Your task to perform on an android device: Open Android settings Image 0: 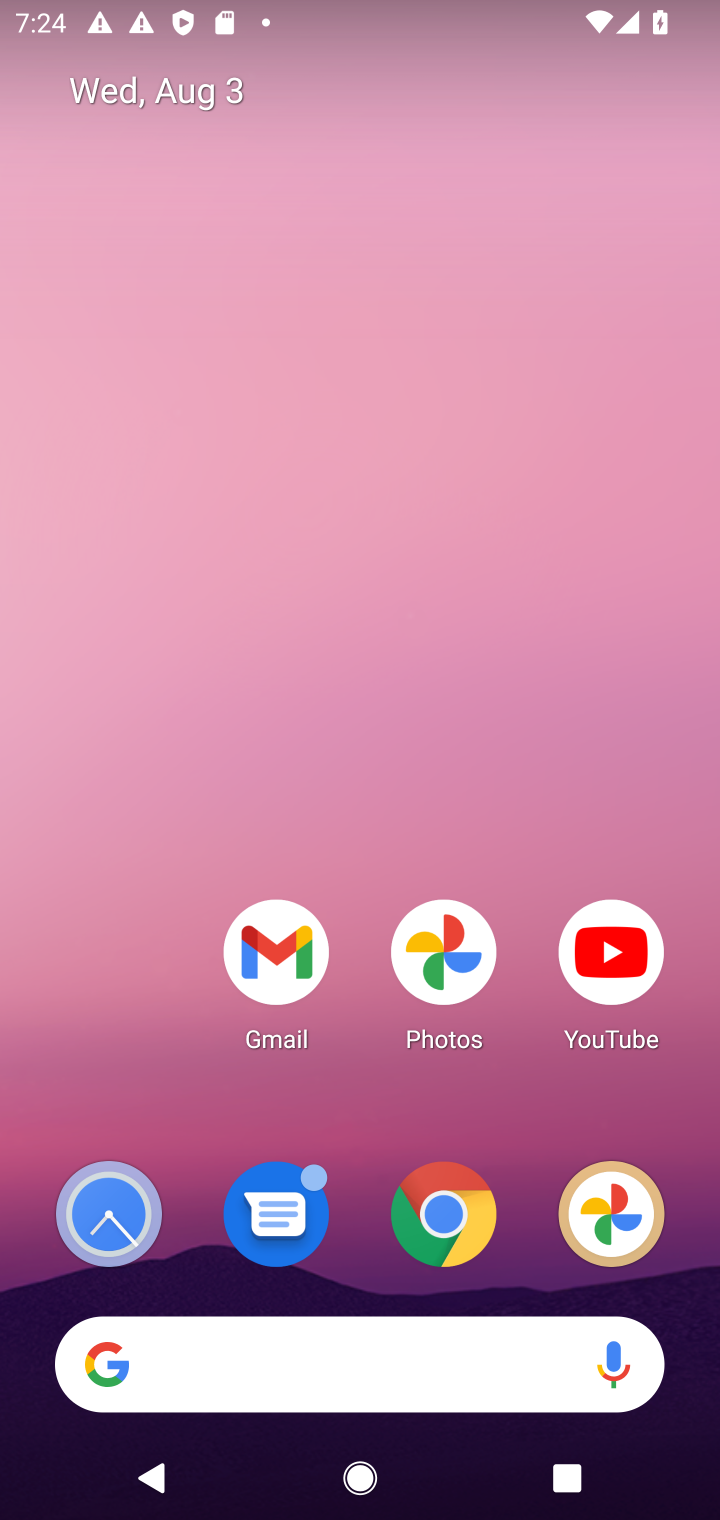
Step 0: drag from (301, 712) to (316, 452)
Your task to perform on an android device: Open Android settings Image 1: 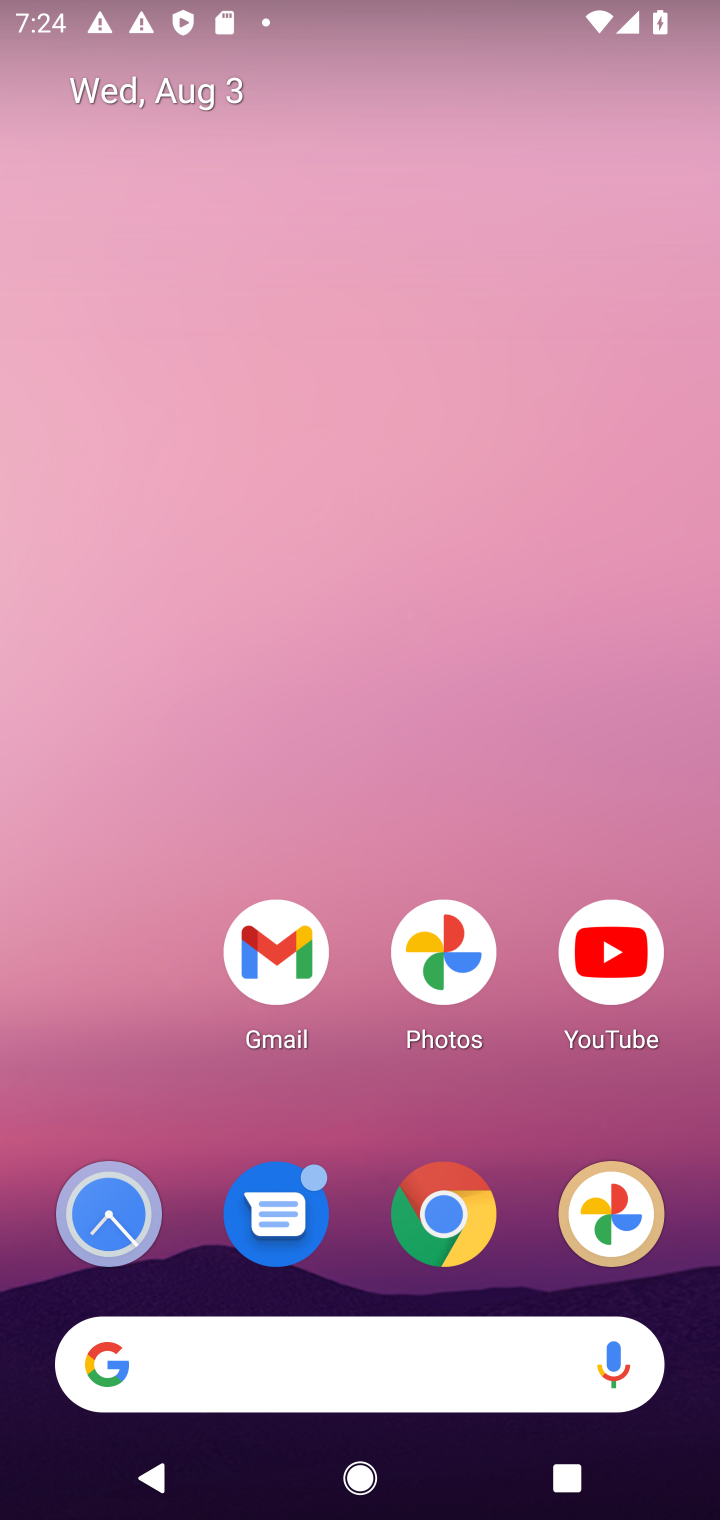
Step 1: drag from (300, 651) to (300, 434)
Your task to perform on an android device: Open Android settings Image 2: 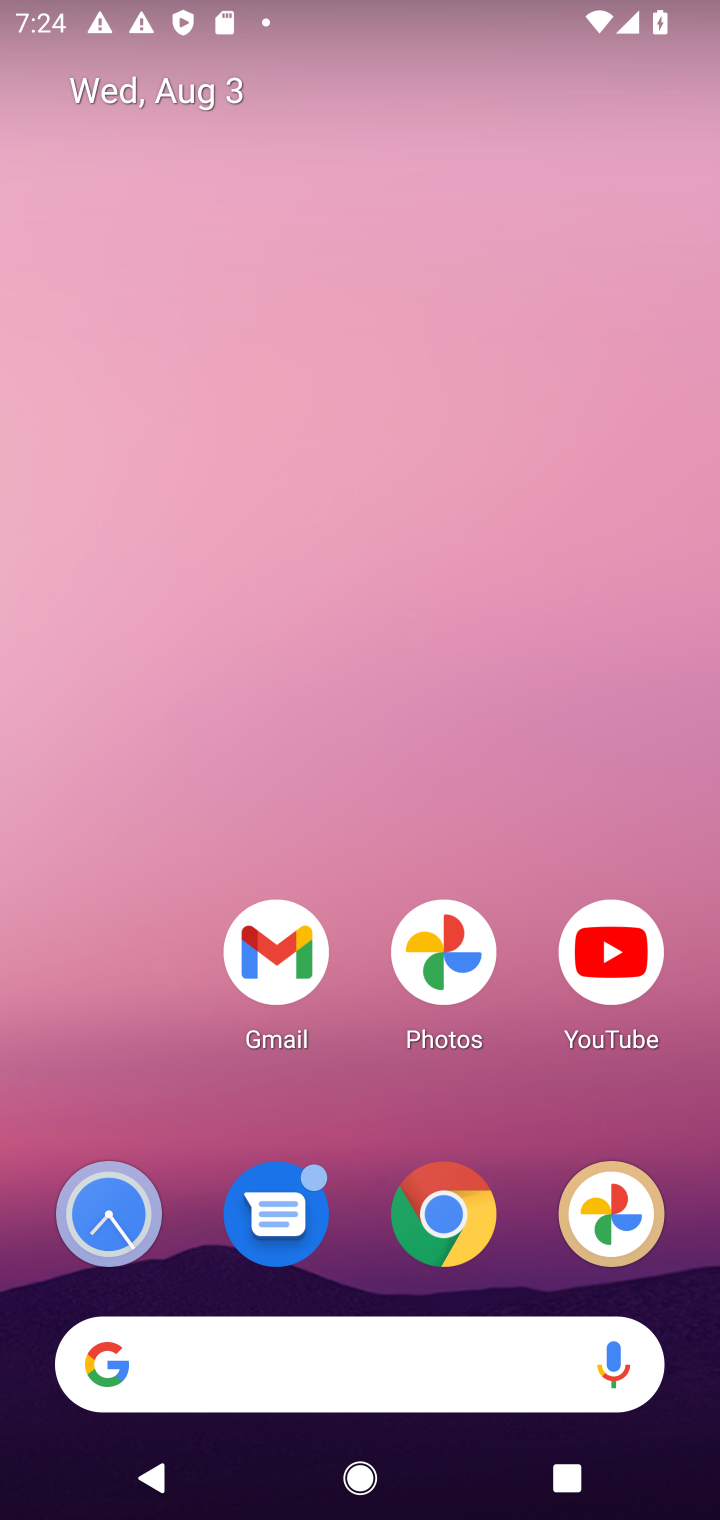
Step 2: drag from (361, 1342) to (422, 383)
Your task to perform on an android device: Open Android settings Image 3: 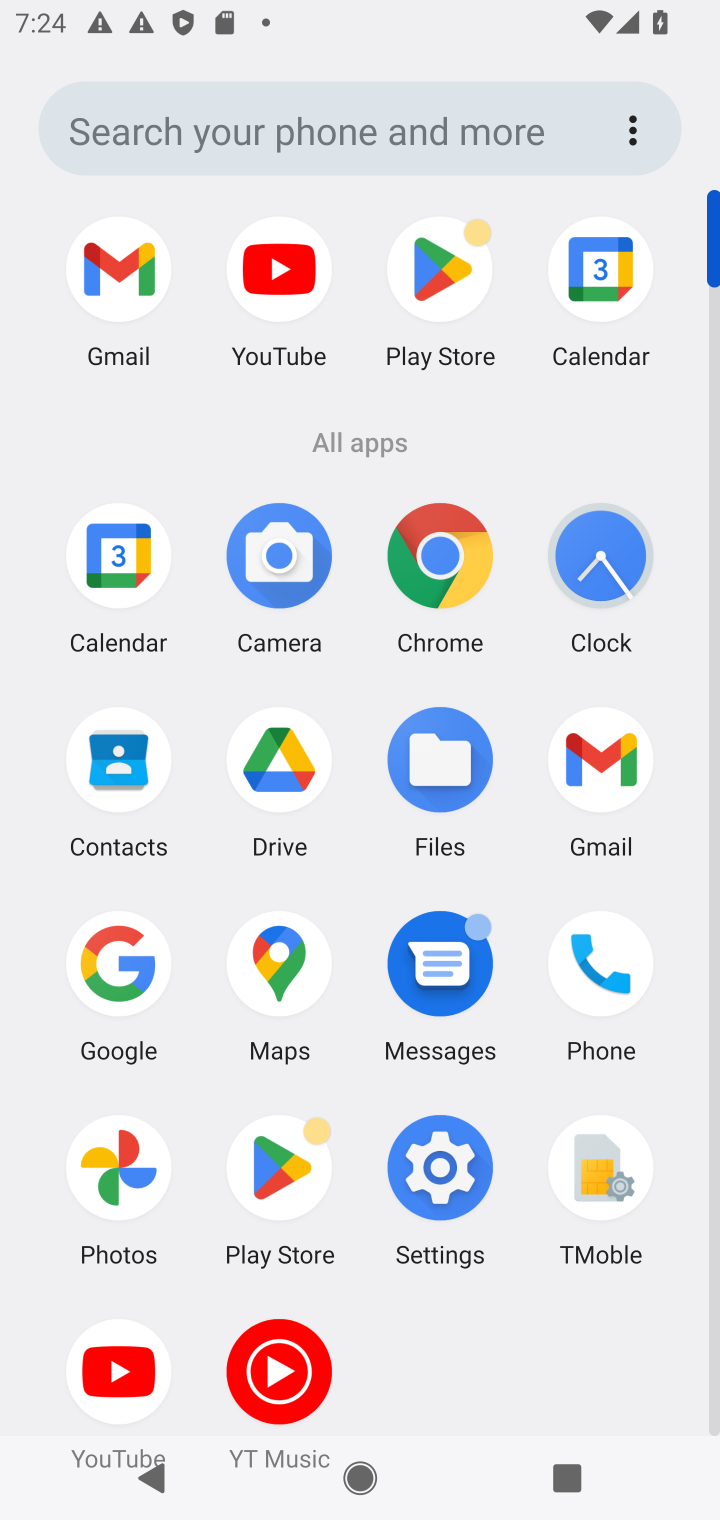
Step 3: click (430, 1179)
Your task to perform on an android device: Open Android settings Image 4: 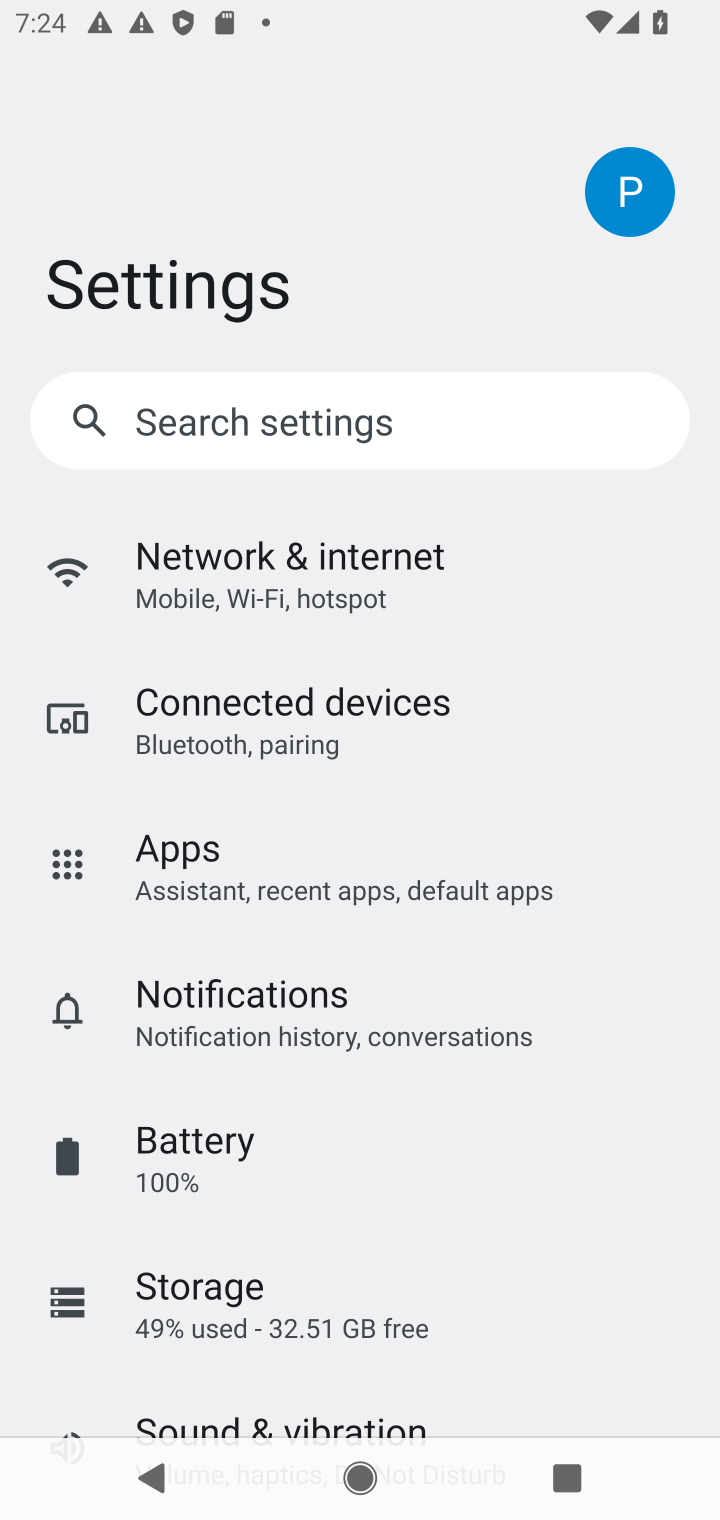
Step 4: drag from (260, 1174) to (298, 428)
Your task to perform on an android device: Open Android settings Image 5: 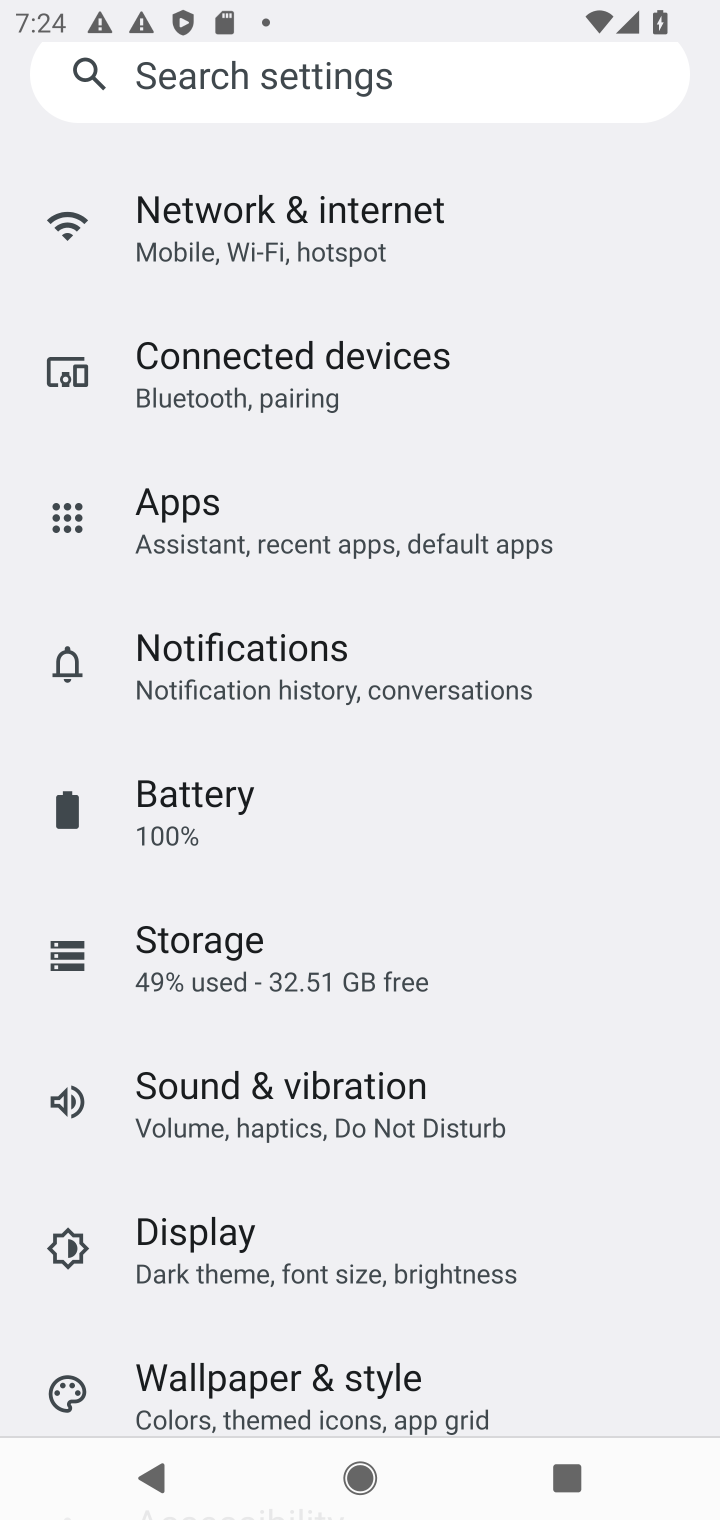
Step 5: drag from (272, 1384) to (355, 382)
Your task to perform on an android device: Open Android settings Image 6: 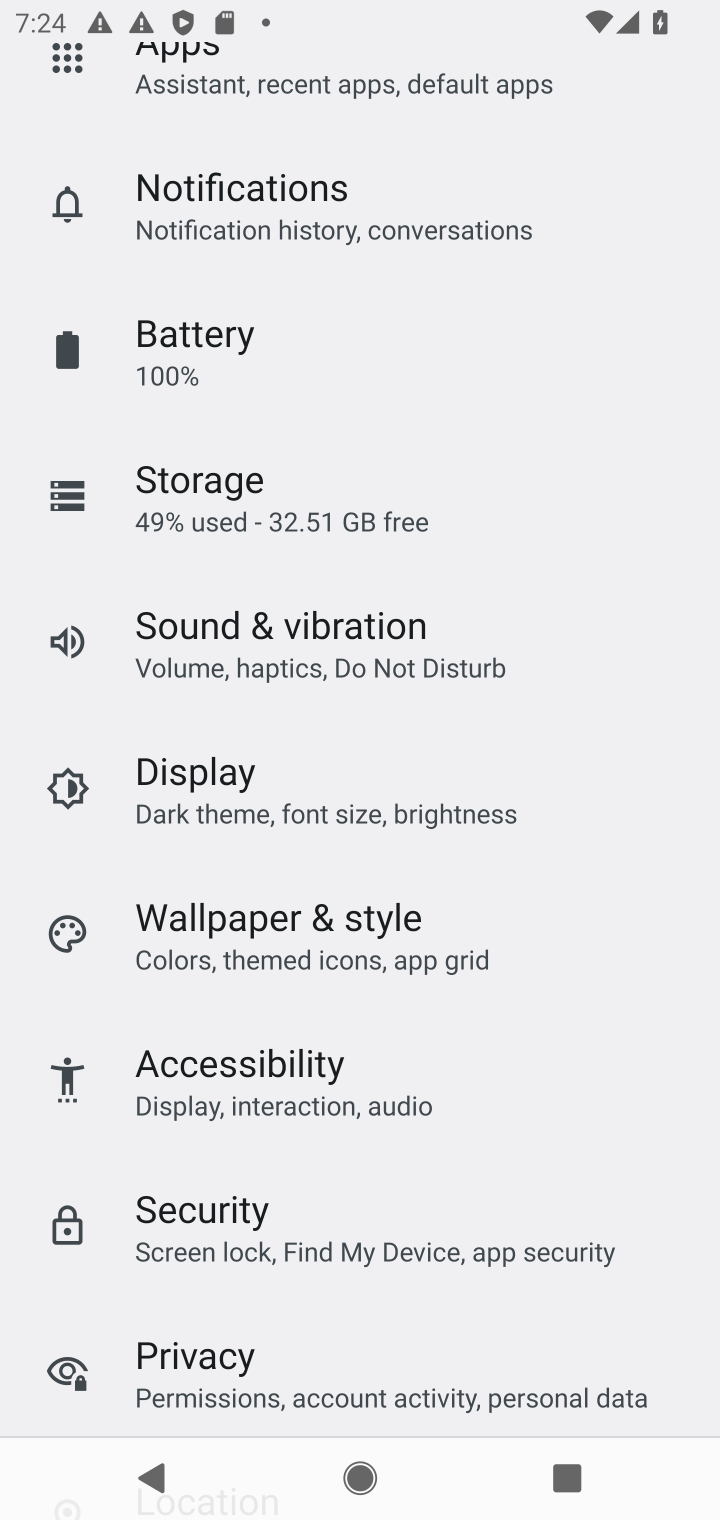
Step 6: drag from (275, 1366) to (283, 367)
Your task to perform on an android device: Open Android settings Image 7: 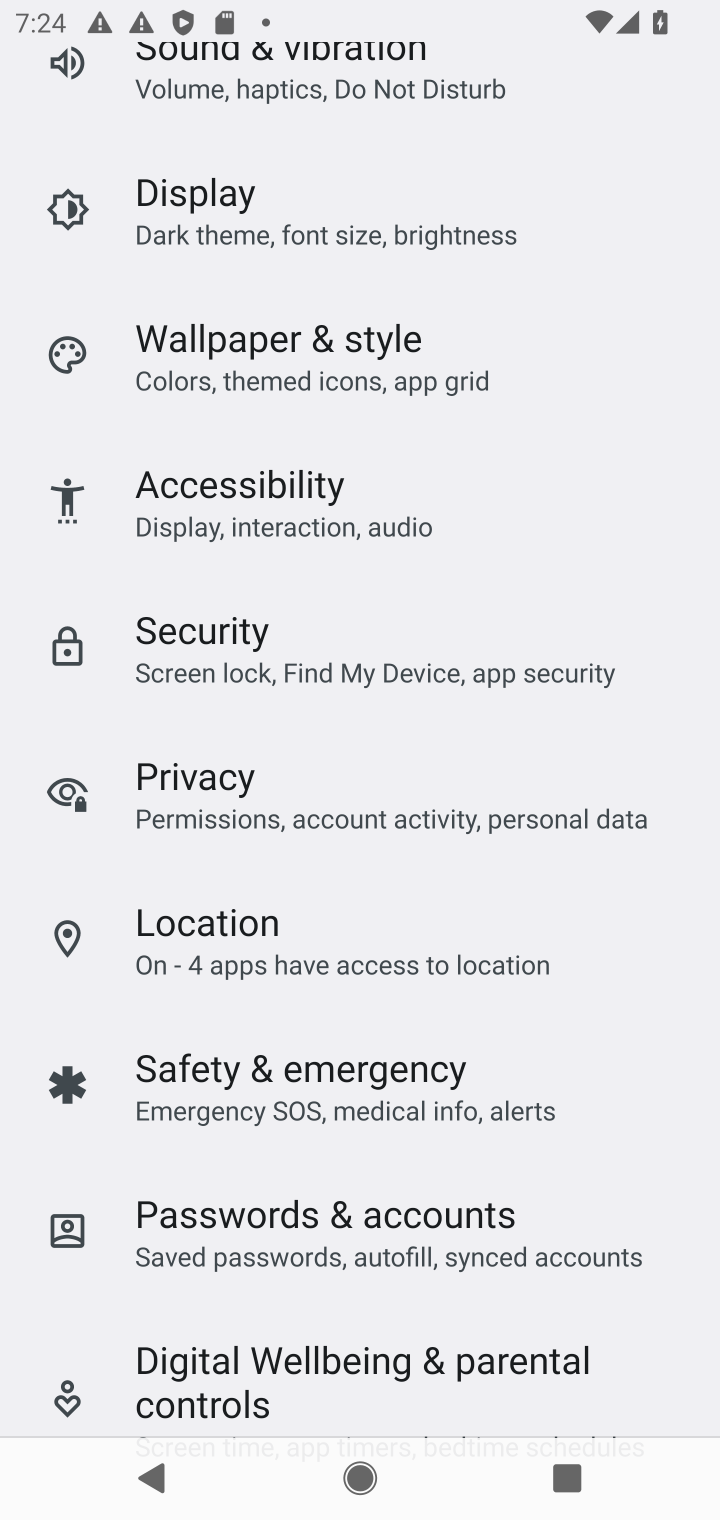
Step 7: drag from (263, 1371) to (360, 332)
Your task to perform on an android device: Open Android settings Image 8: 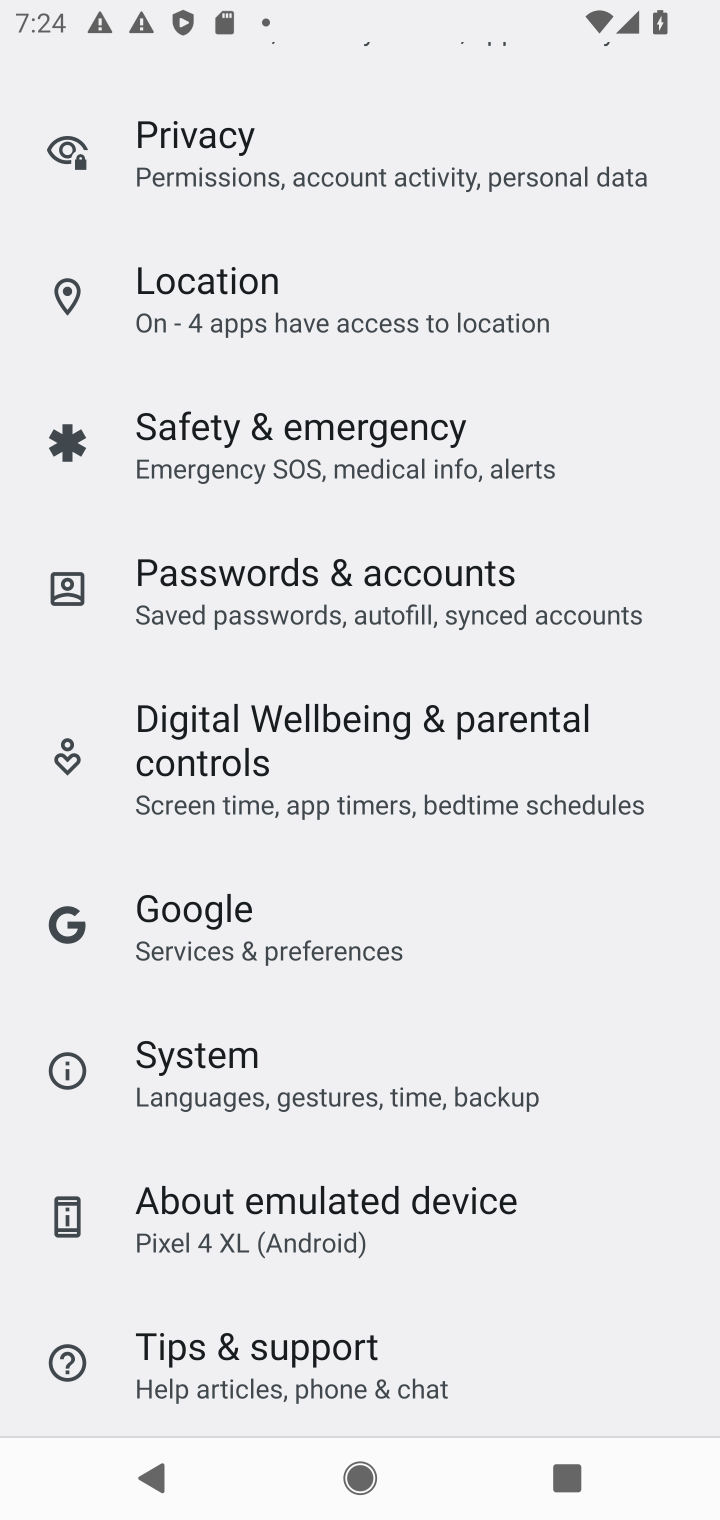
Step 8: click (196, 1219)
Your task to perform on an android device: Open Android settings Image 9: 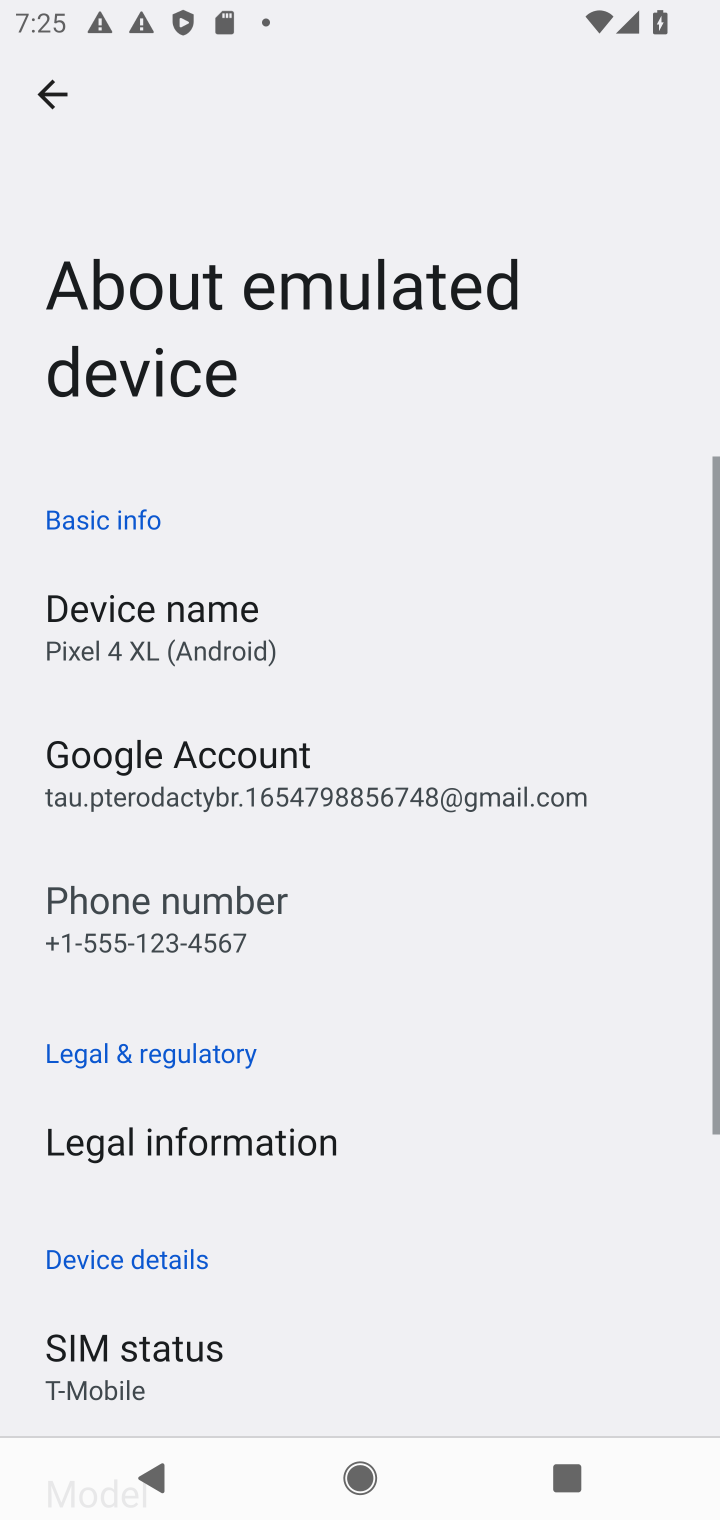
Step 9: task complete